Your task to perform on an android device: turn vacation reply on in the gmail app Image 0: 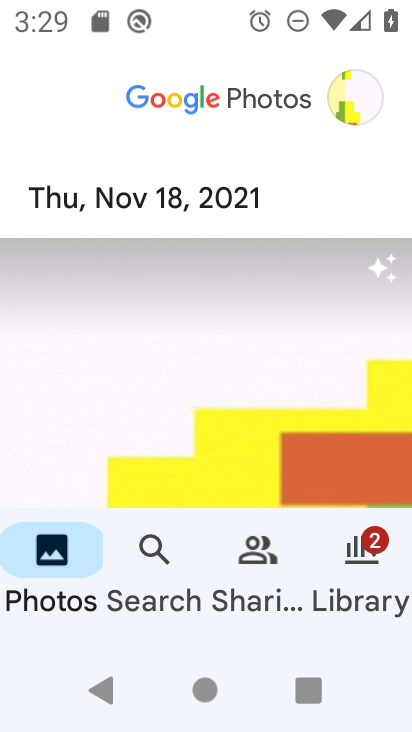
Step 0: press home button
Your task to perform on an android device: turn vacation reply on in the gmail app Image 1: 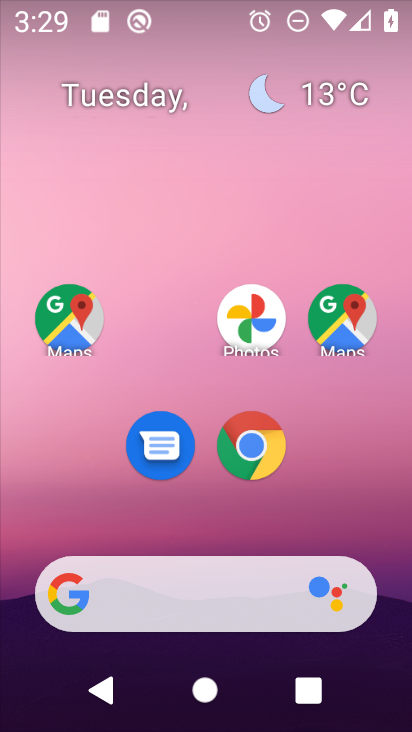
Step 1: drag from (399, 567) to (386, 201)
Your task to perform on an android device: turn vacation reply on in the gmail app Image 2: 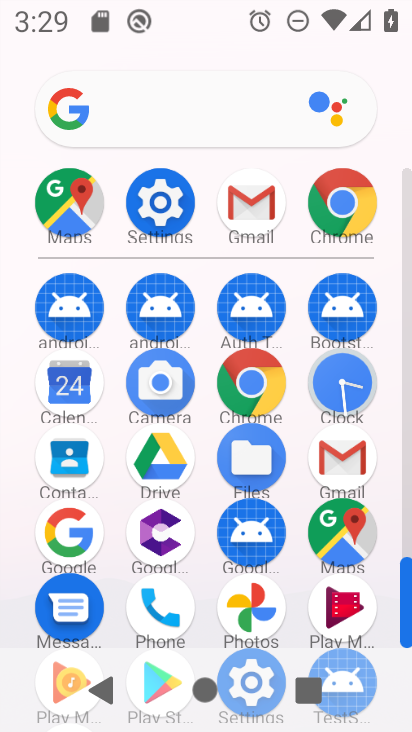
Step 2: click (353, 469)
Your task to perform on an android device: turn vacation reply on in the gmail app Image 3: 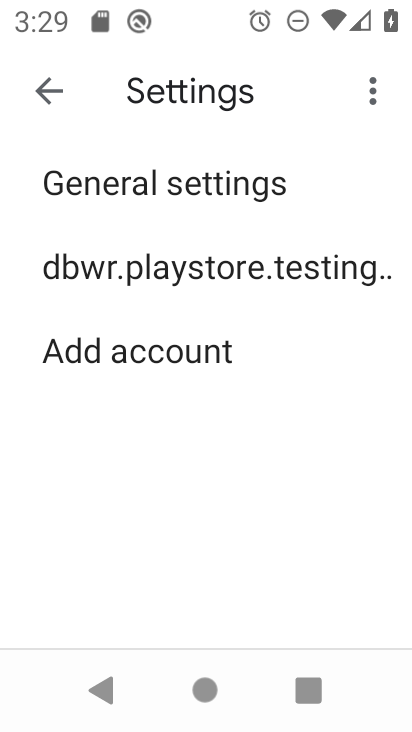
Step 3: click (165, 279)
Your task to perform on an android device: turn vacation reply on in the gmail app Image 4: 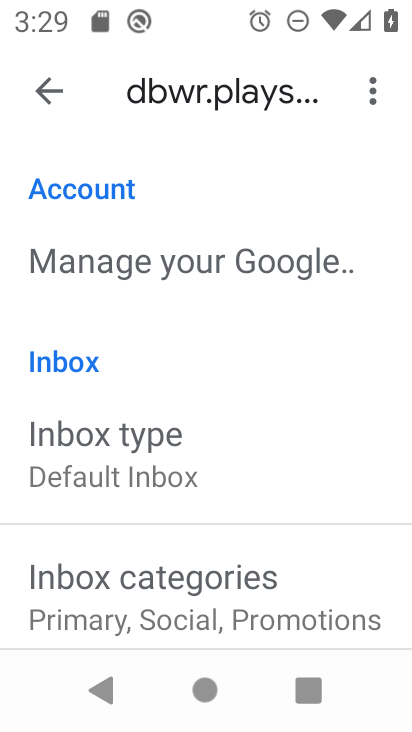
Step 4: drag from (360, 543) to (348, 375)
Your task to perform on an android device: turn vacation reply on in the gmail app Image 5: 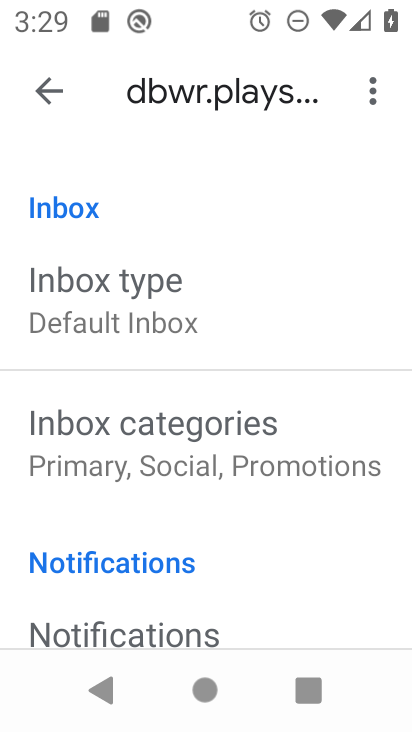
Step 5: drag from (344, 598) to (350, 388)
Your task to perform on an android device: turn vacation reply on in the gmail app Image 6: 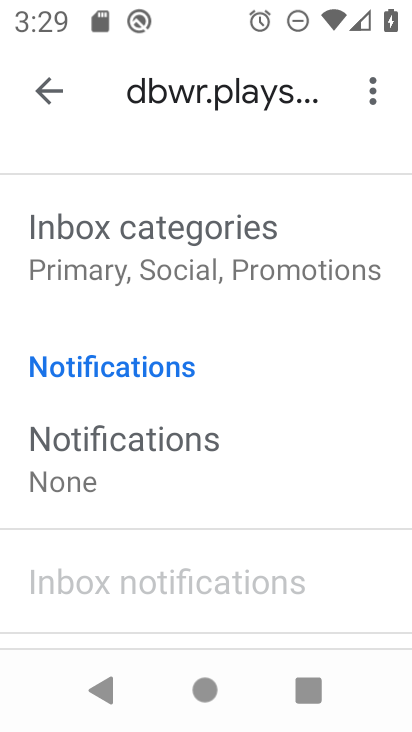
Step 6: drag from (362, 587) to (360, 431)
Your task to perform on an android device: turn vacation reply on in the gmail app Image 7: 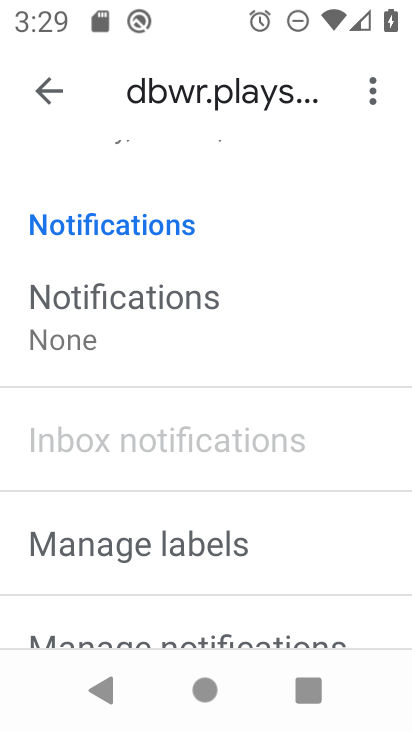
Step 7: drag from (352, 584) to (352, 470)
Your task to perform on an android device: turn vacation reply on in the gmail app Image 8: 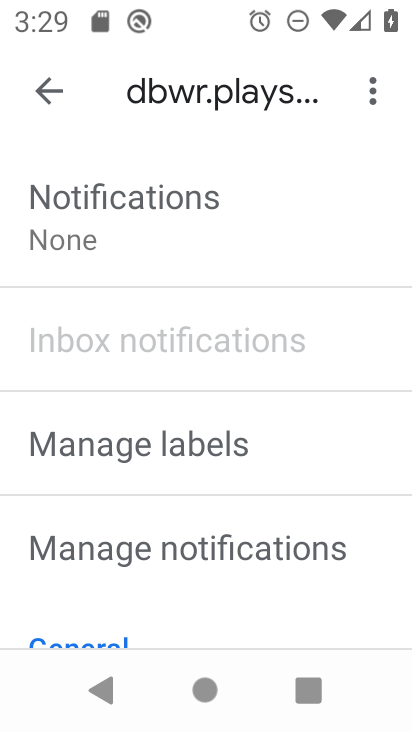
Step 8: drag from (344, 579) to (340, 468)
Your task to perform on an android device: turn vacation reply on in the gmail app Image 9: 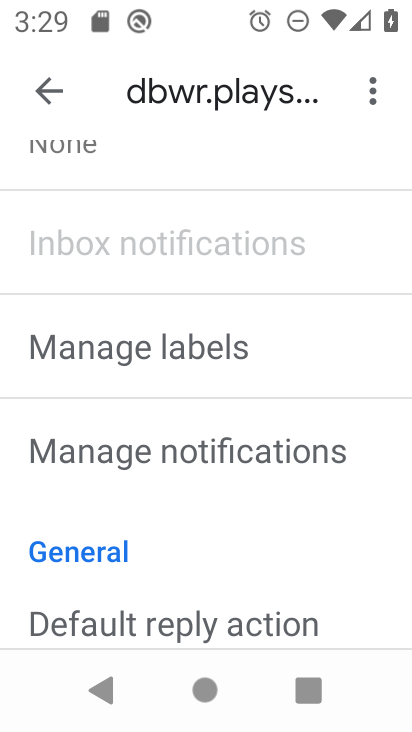
Step 9: drag from (353, 581) to (355, 488)
Your task to perform on an android device: turn vacation reply on in the gmail app Image 10: 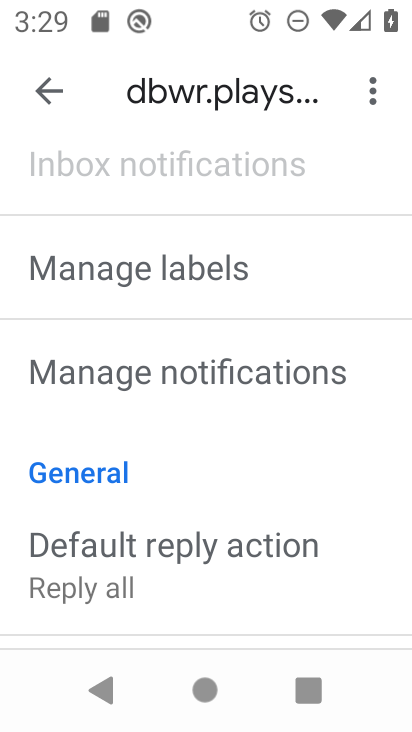
Step 10: drag from (354, 601) to (354, 520)
Your task to perform on an android device: turn vacation reply on in the gmail app Image 11: 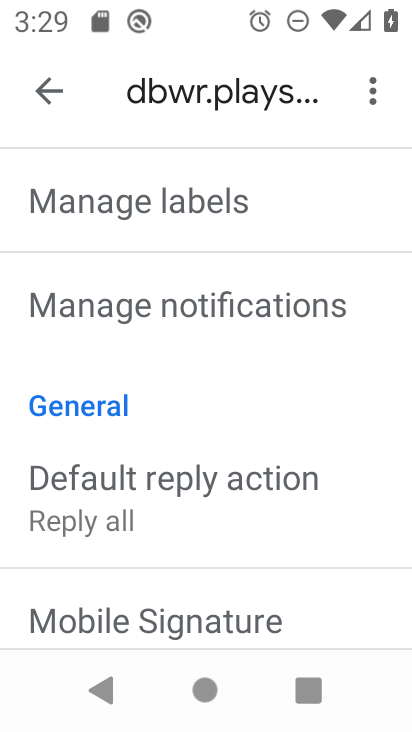
Step 11: drag from (361, 611) to (366, 508)
Your task to perform on an android device: turn vacation reply on in the gmail app Image 12: 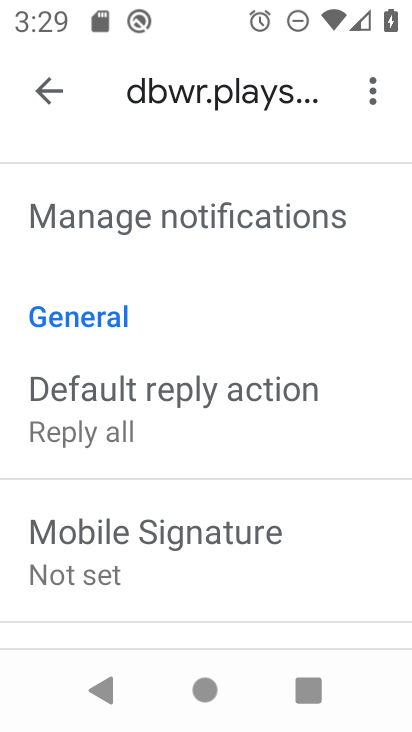
Step 12: drag from (362, 596) to (362, 504)
Your task to perform on an android device: turn vacation reply on in the gmail app Image 13: 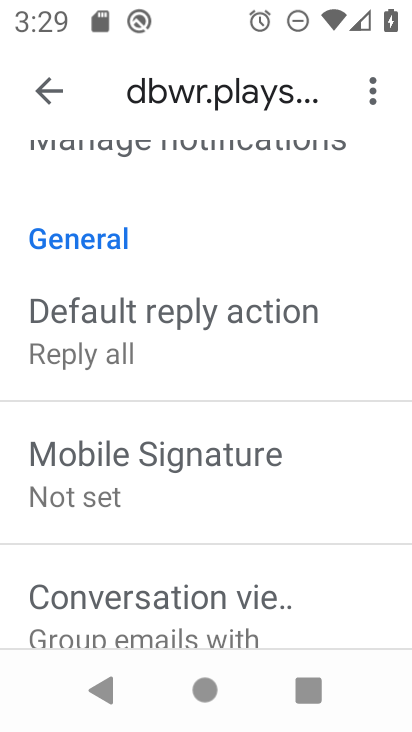
Step 13: drag from (364, 572) to (364, 496)
Your task to perform on an android device: turn vacation reply on in the gmail app Image 14: 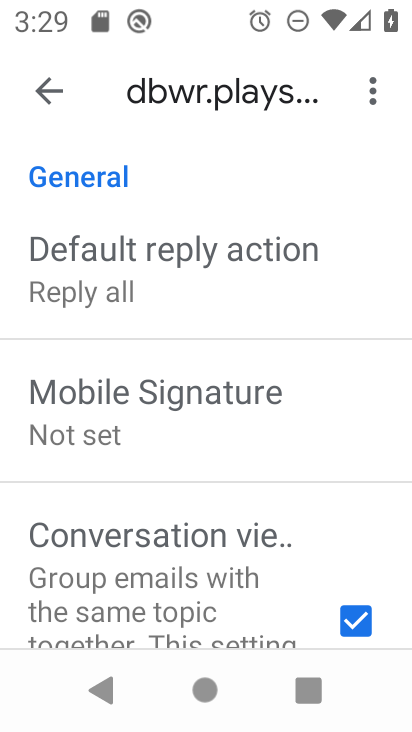
Step 14: drag from (364, 581) to (366, 487)
Your task to perform on an android device: turn vacation reply on in the gmail app Image 15: 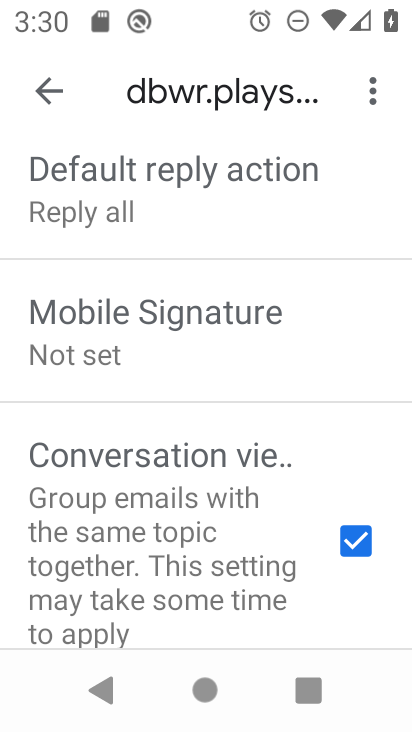
Step 15: drag from (383, 616) to (386, 508)
Your task to perform on an android device: turn vacation reply on in the gmail app Image 16: 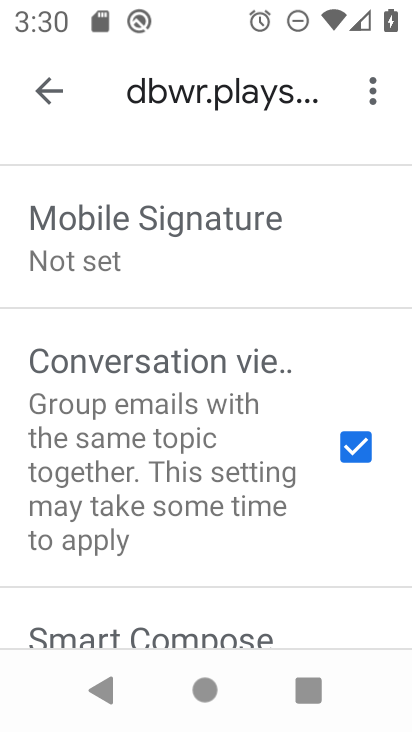
Step 16: drag from (378, 605) to (386, 531)
Your task to perform on an android device: turn vacation reply on in the gmail app Image 17: 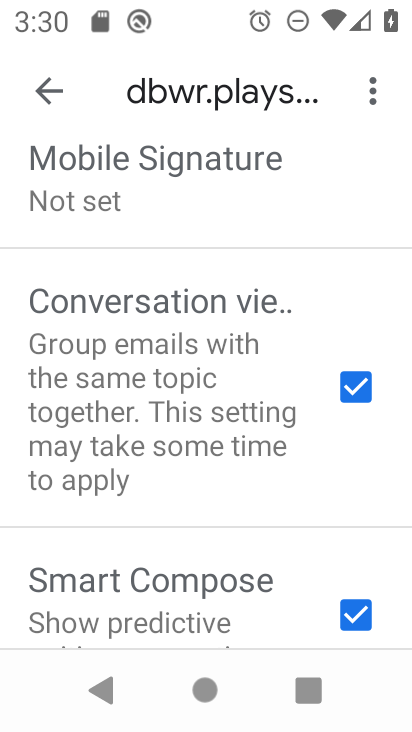
Step 17: drag from (385, 613) to (386, 509)
Your task to perform on an android device: turn vacation reply on in the gmail app Image 18: 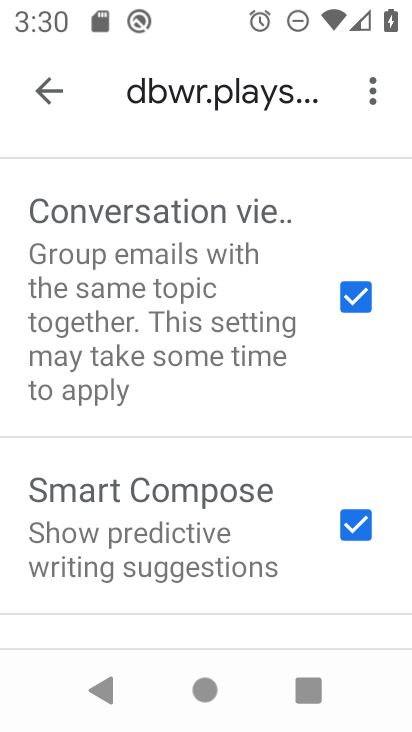
Step 18: drag from (390, 598) to (381, 492)
Your task to perform on an android device: turn vacation reply on in the gmail app Image 19: 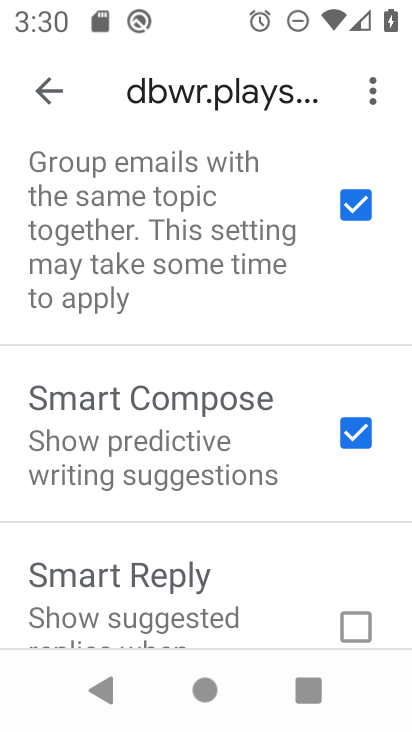
Step 19: drag from (385, 579) to (389, 459)
Your task to perform on an android device: turn vacation reply on in the gmail app Image 20: 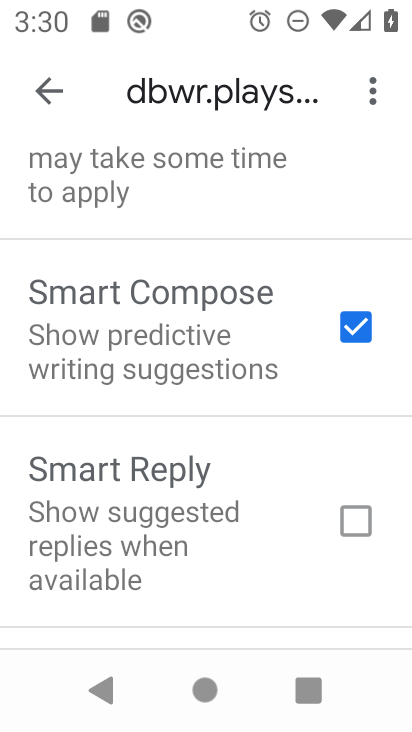
Step 20: drag from (387, 601) to (381, 505)
Your task to perform on an android device: turn vacation reply on in the gmail app Image 21: 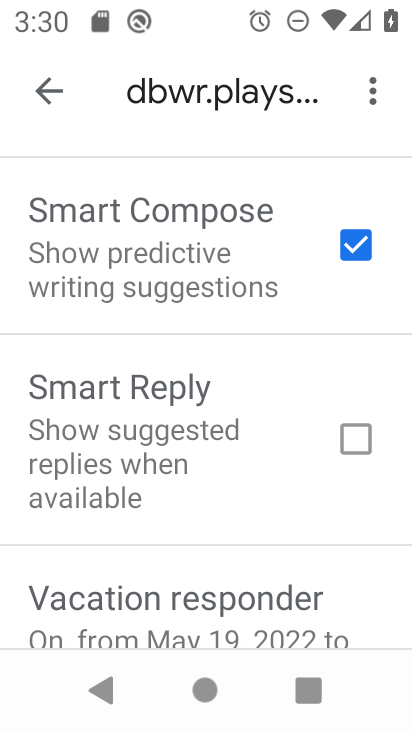
Step 21: drag from (372, 604) to (372, 503)
Your task to perform on an android device: turn vacation reply on in the gmail app Image 22: 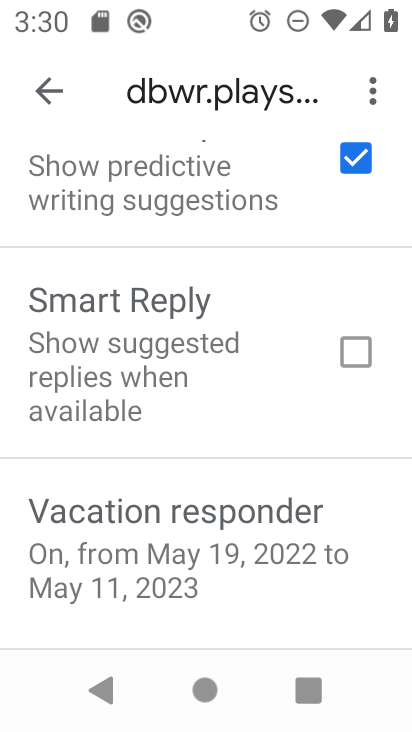
Step 22: drag from (374, 597) to (377, 508)
Your task to perform on an android device: turn vacation reply on in the gmail app Image 23: 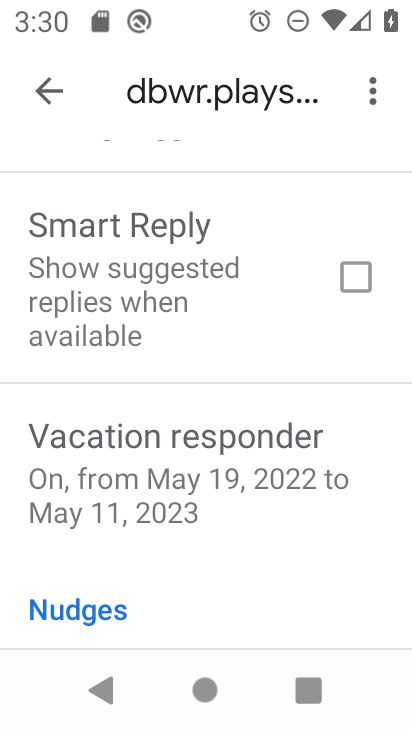
Step 23: drag from (367, 598) to (365, 501)
Your task to perform on an android device: turn vacation reply on in the gmail app Image 24: 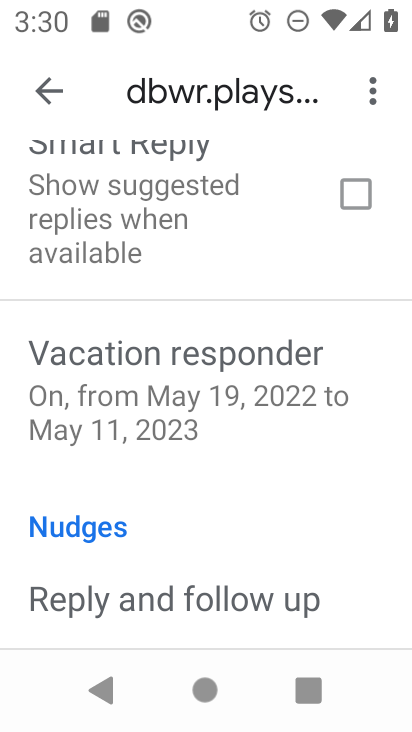
Step 24: drag from (365, 583) to (362, 488)
Your task to perform on an android device: turn vacation reply on in the gmail app Image 25: 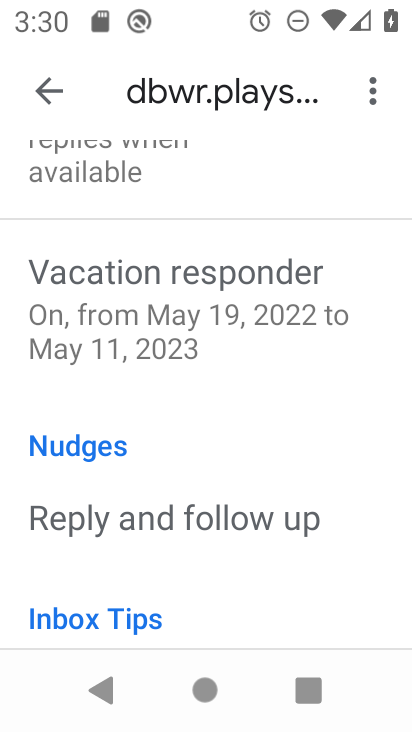
Step 25: drag from (362, 569) to (358, 458)
Your task to perform on an android device: turn vacation reply on in the gmail app Image 26: 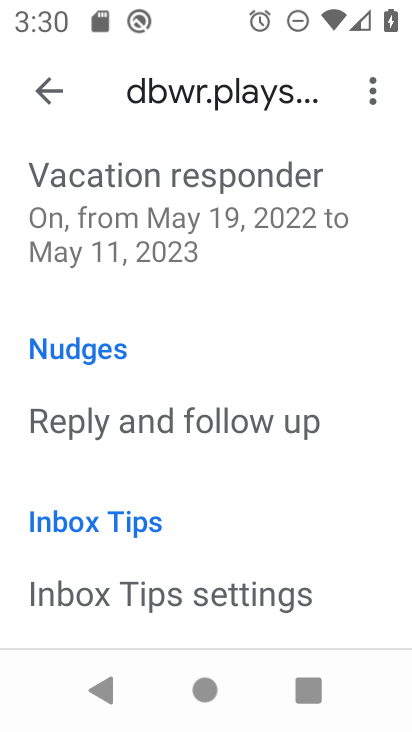
Step 26: click (290, 232)
Your task to perform on an android device: turn vacation reply on in the gmail app Image 27: 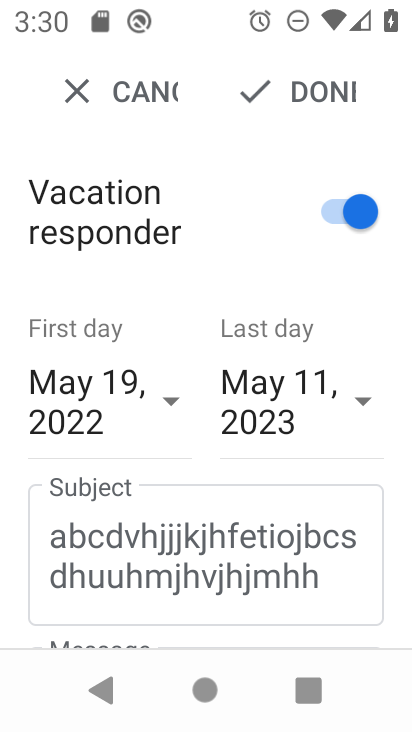
Step 27: task complete